Your task to perform on an android device: Go to CNN.com Image 0: 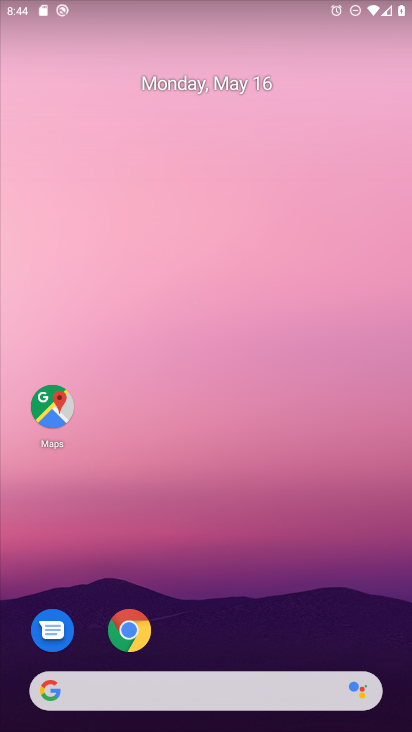
Step 0: drag from (278, 593) to (318, 238)
Your task to perform on an android device: Go to CNN.com Image 1: 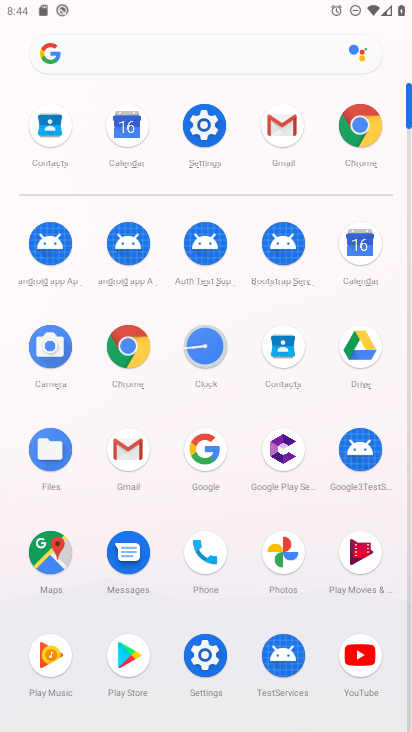
Step 1: click (139, 49)
Your task to perform on an android device: Go to CNN.com Image 2: 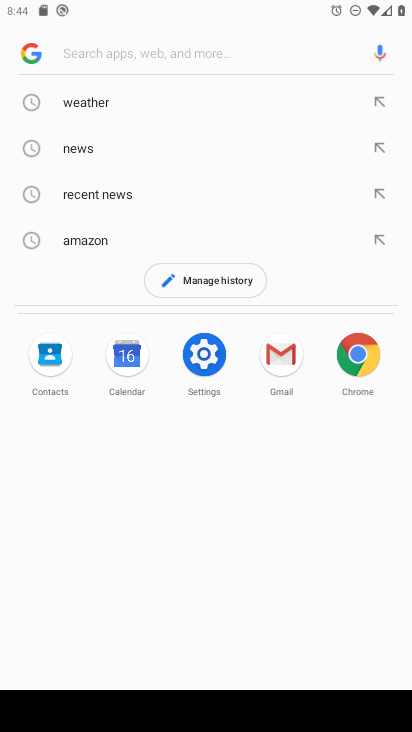
Step 2: type "CNN.com"
Your task to perform on an android device: Go to CNN.com Image 3: 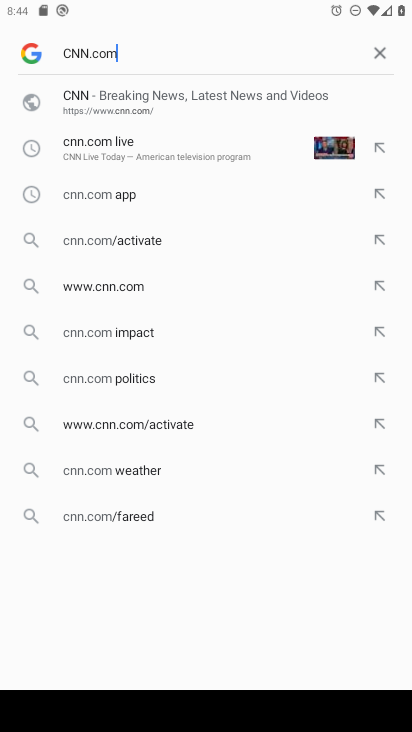
Step 3: click (131, 290)
Your task to perform on an android device: Go to CNN.com Image 4: 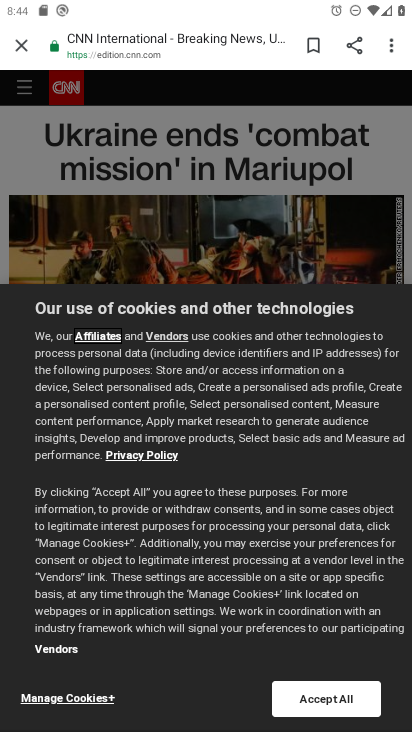
Step 4: task complete